Your task to perform on an android device: Turn off the flashlight Image 0: 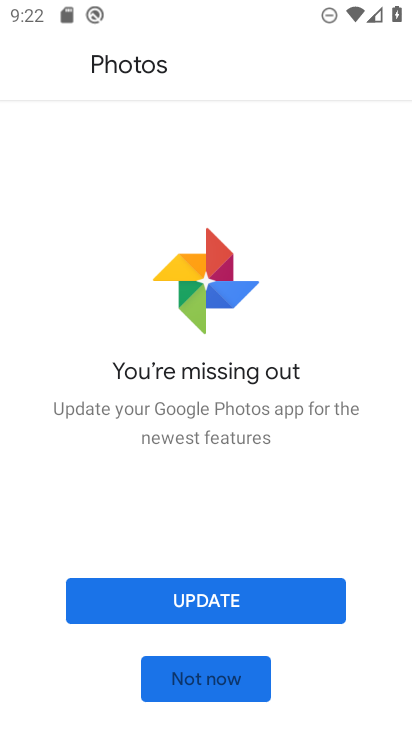
Step 0: press home button
Your task to perform on an android device: Turn off the flashlight Image 1: 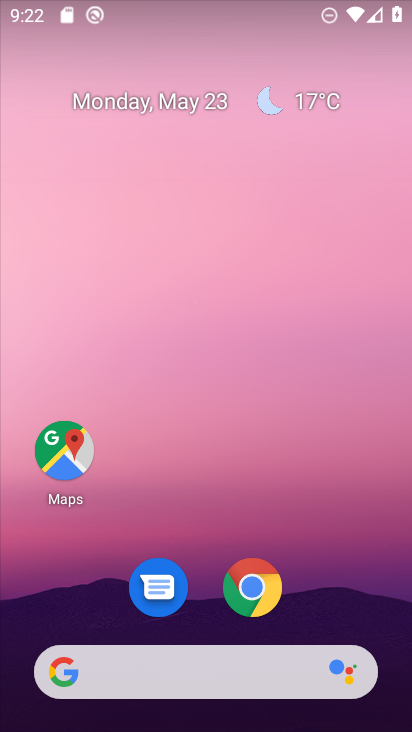
Step 1: drag from (154, 539) to (266, 79)
Your task to perform on an android device: Turn off the flashlight Image 2: 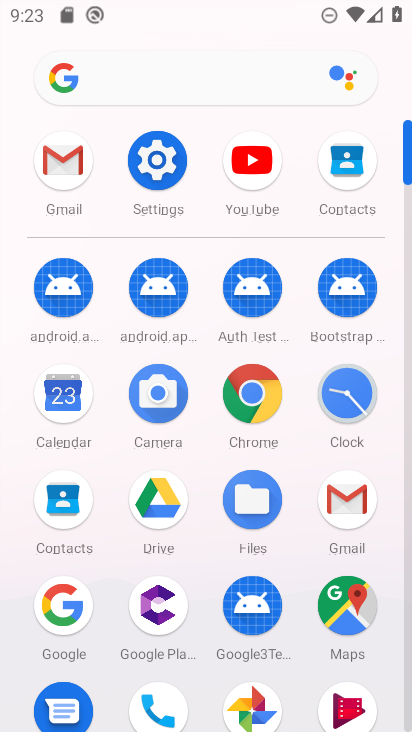
Step 2: click (164, 162)
Your task to perform on an android device: Turn off the flashlight Image 3: 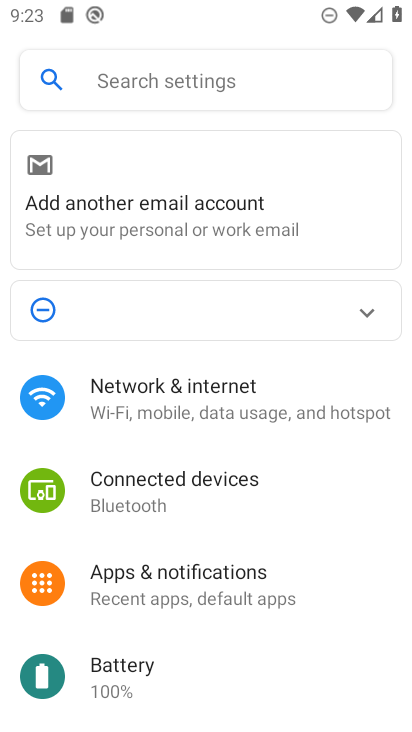
Step 3: click (136, 73)
Your task to perform on an android device: Turn off the flashlight Image 4: 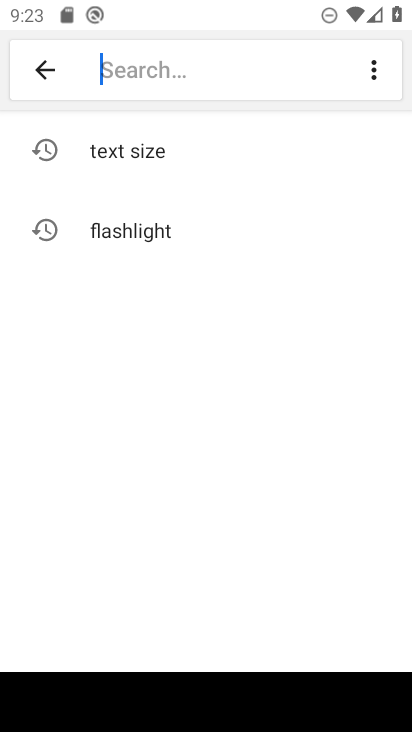
Step 4: click (132, 230)
Your task to perform on an android device: Turn off the flashlight Image 5: 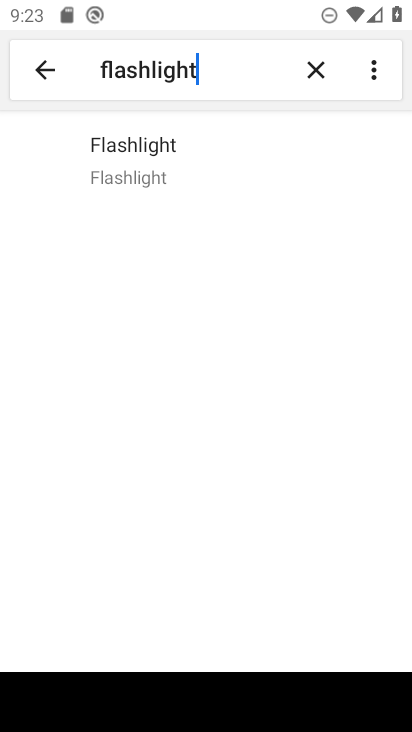
Step 5: click (144, 163)
Your task to perform on an android device: Turn off the flashlight Image 6: 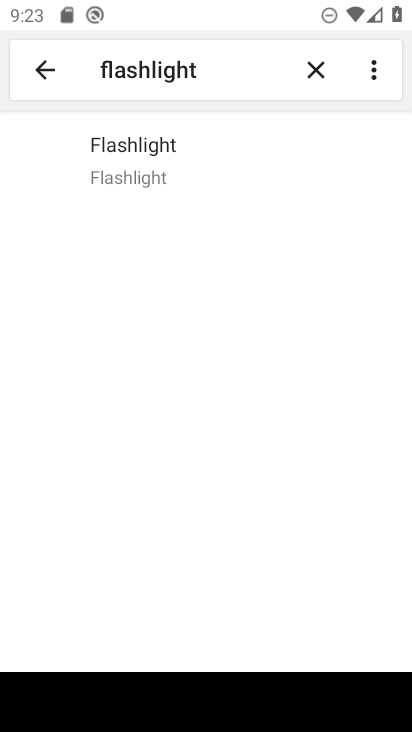
Step 6: task complete